Your task to perform on an android device: all mails in gmail Image 0: 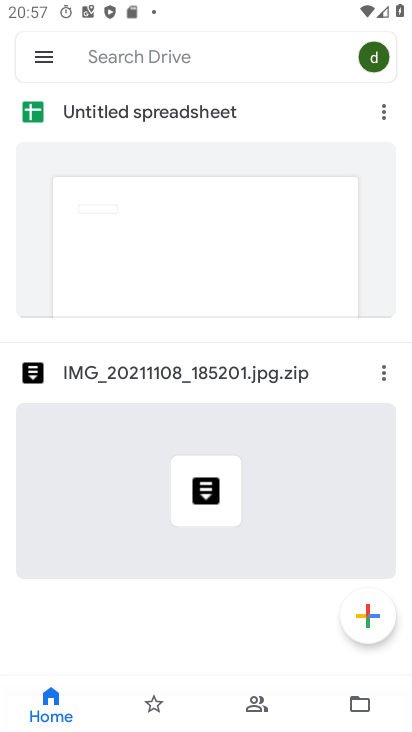
Step 0: click (294, 371)
Your task to perform on an android device: all mails in gmail Image 1: 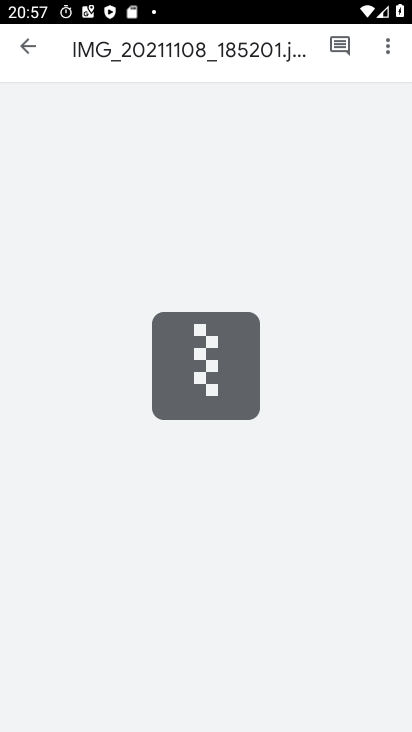
Step 1: press home button
Your task to perform on an android device: all mails in gmail Image 2: 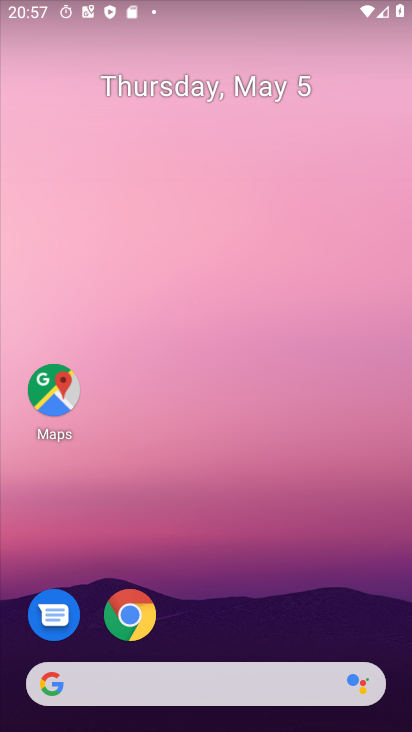
Step 2: drag from (216, 655) to (252, 12)
Your task to perform on an android device: all mails in gmail Image 3: 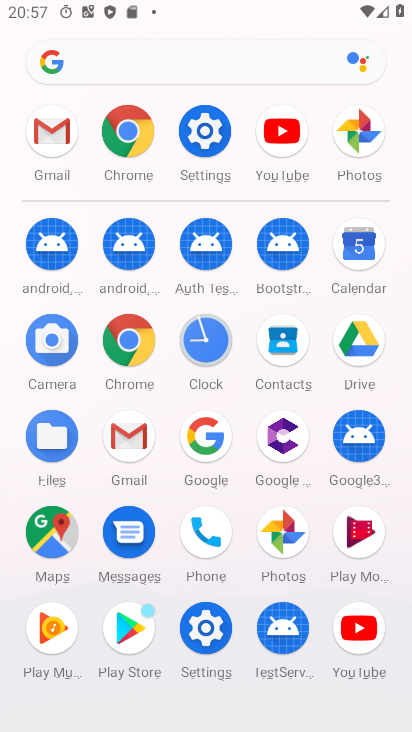
Step 3: click (145, 451)
Your task to perform on an android device: all mails in gmail Image 4: 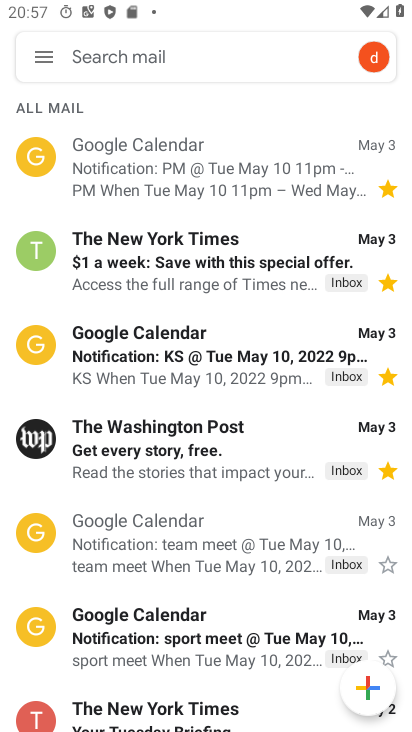
Step 4: click (39, 68)
Your task to perform on an android device: all mails in gmail Image 5: 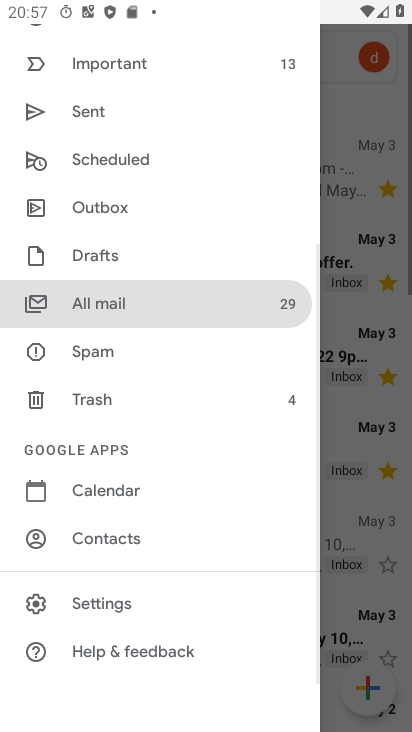
Step 5: click (109, 314)
Your task to perform on an android device: all mails in gmail Image 6: 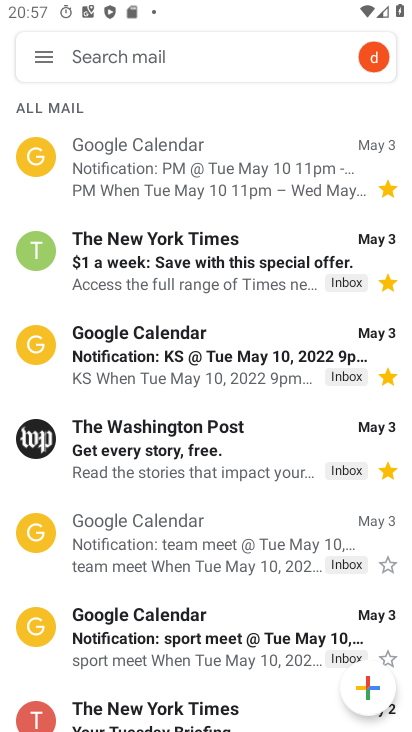
Step 6: task complete